Your task to perform on an android device: Add logitech g910 to the cart on newegg.com, then select checkout. Image 0: 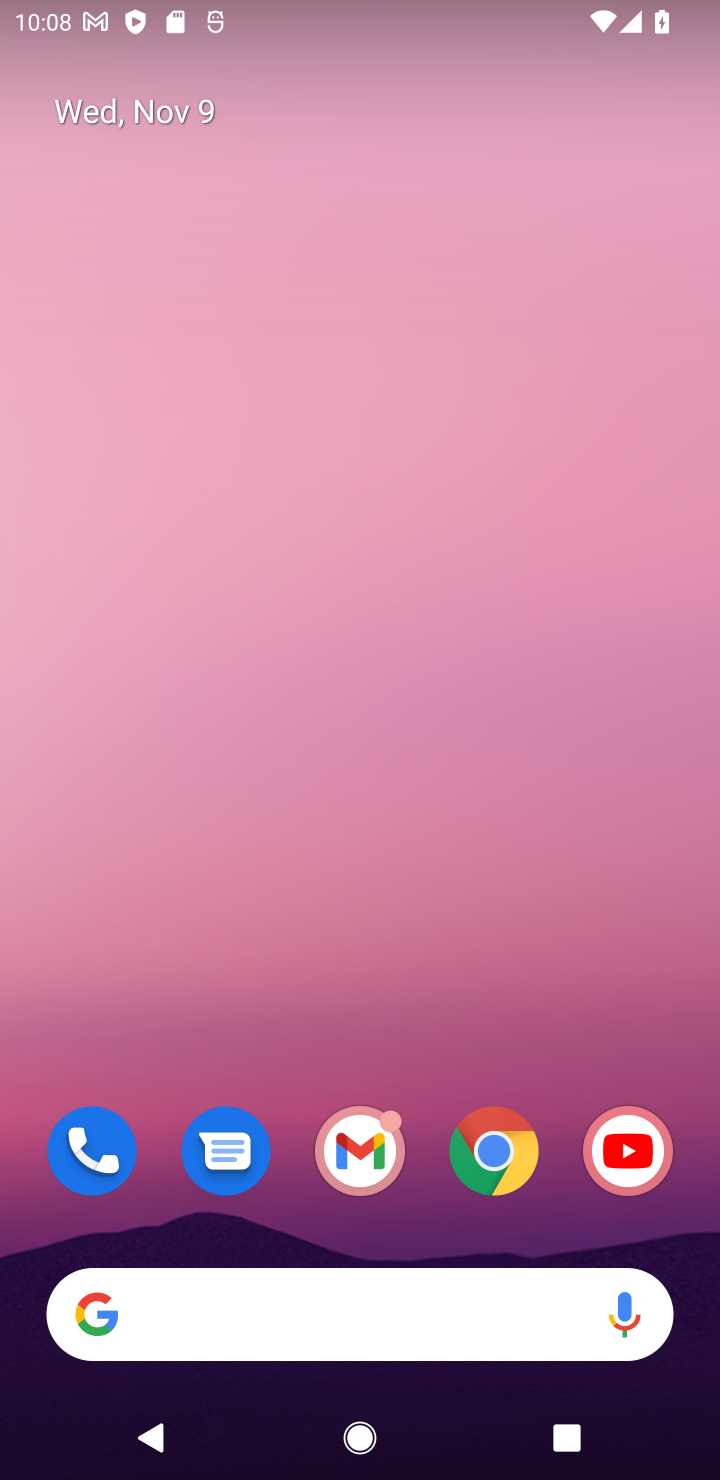
Step 0: click (475, 1157)
Your task to perform on an android device: Add logitech g910 to the cart on newegg.com, then select checkout. Image 1: 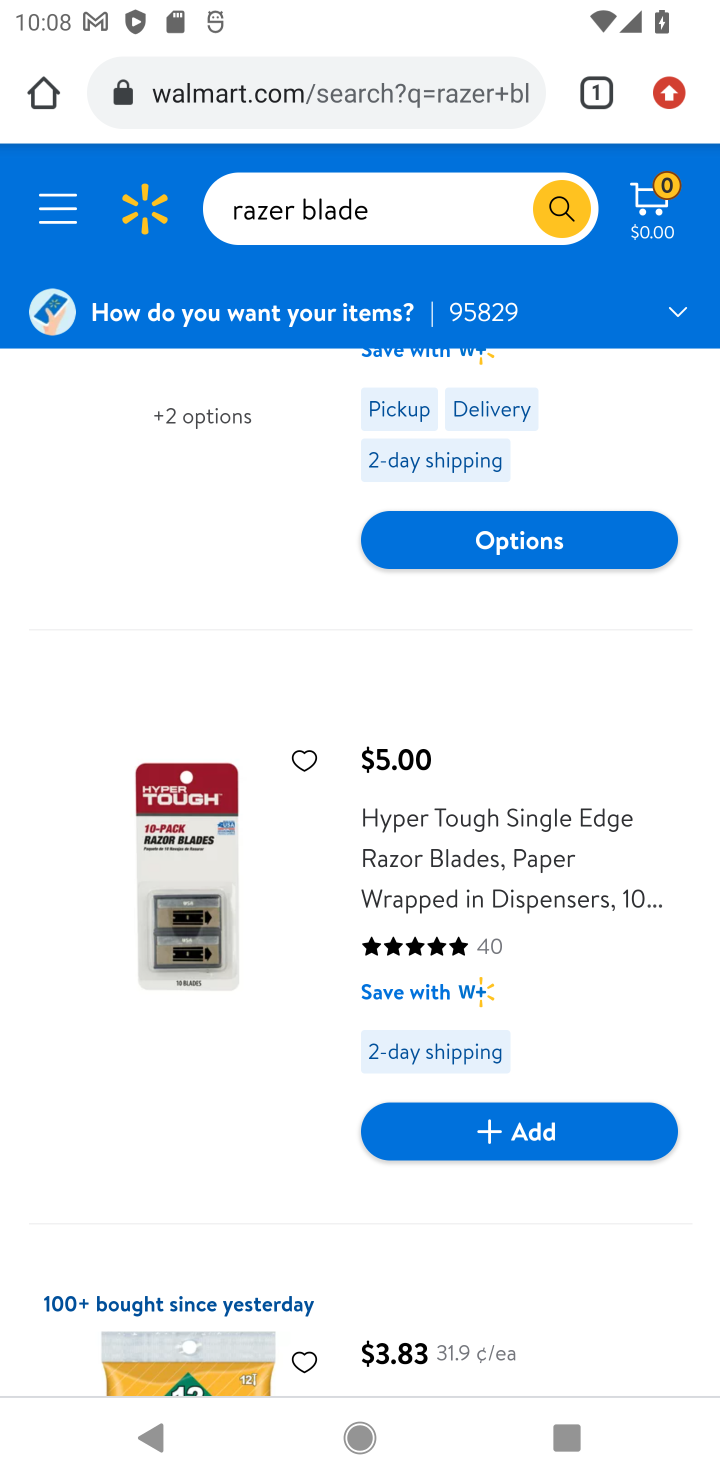
Step 1: click (419, 107)
Your task to perform on an android device: Add logitech g910 to the cart on newegg.com, then select checkout. Image 2: 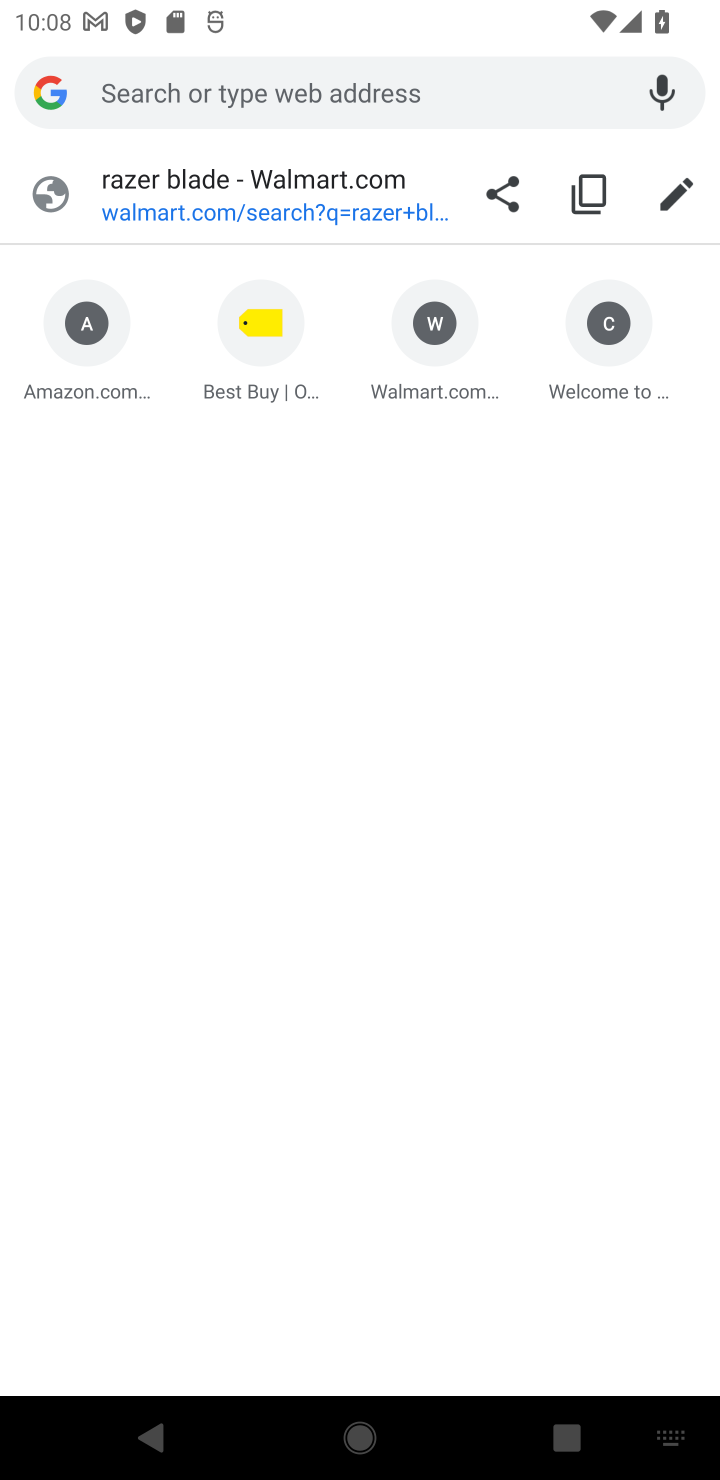
Step 2: type "newegg.com"
Your task to perform on an android device: Add logitech g910 to the cart on newegg.com, then select checkout. Image 3: 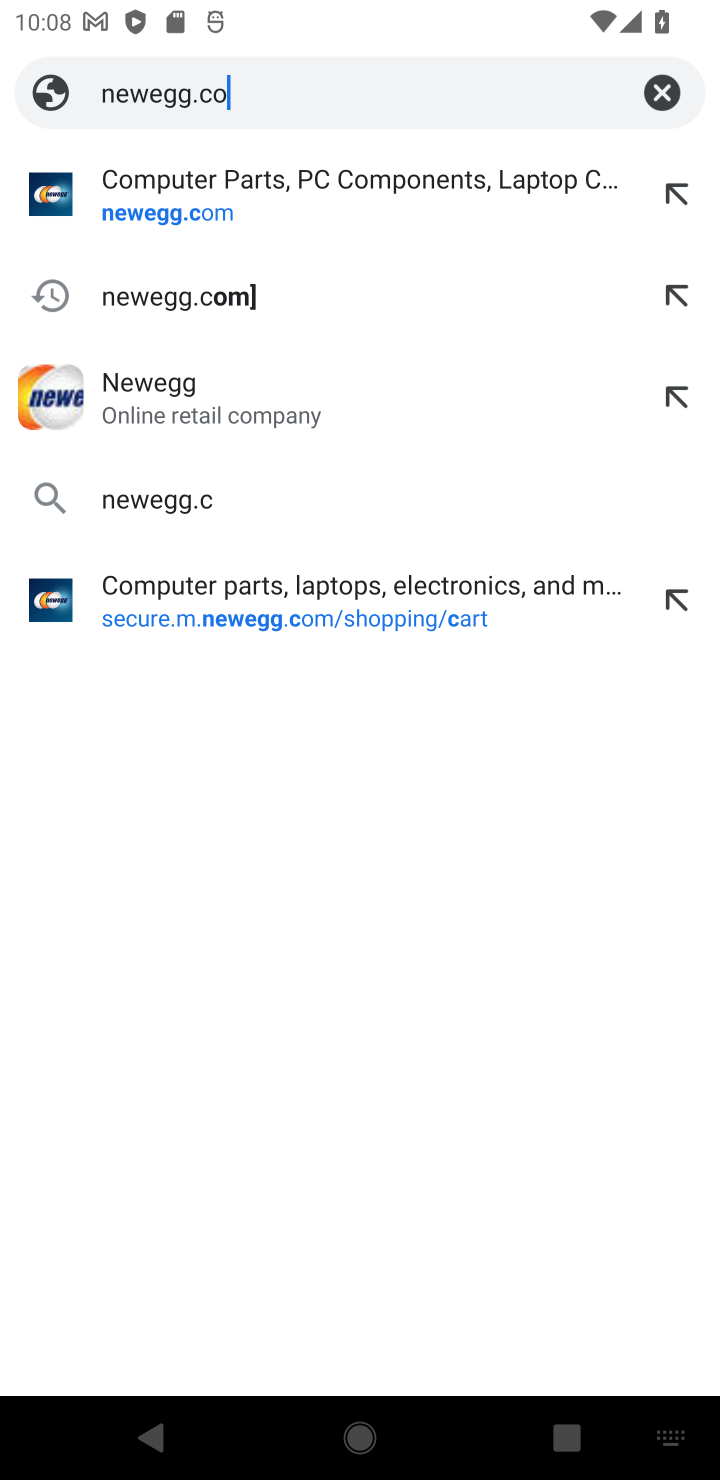
Step 3: press enter
Your task to perform on an android device: Add logitech g910 to the cart on newegg.com, then select checkout. Image 4: 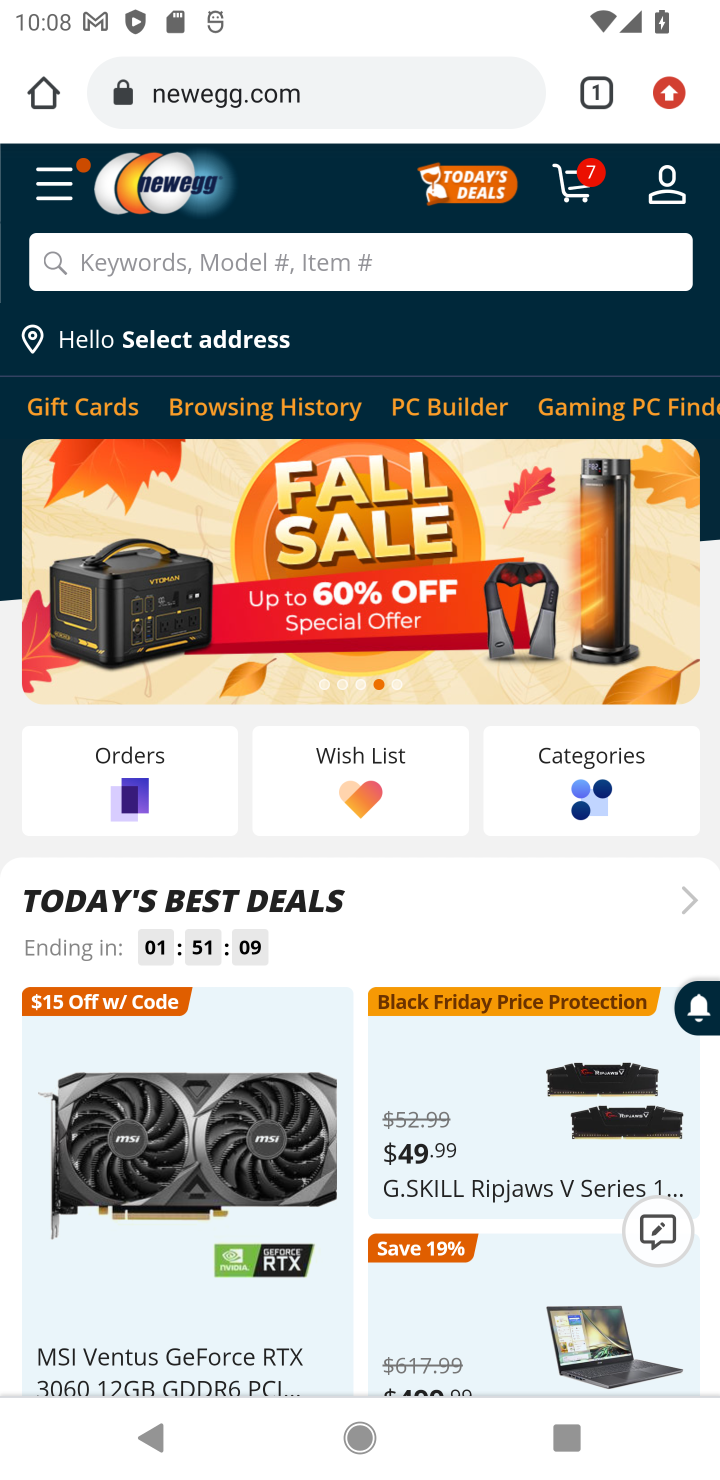
Step 4: click (346, 256)
Your task to perform on an android device: Add logitech g910 to the cart on newegg.com, then select checkout. Image 5: 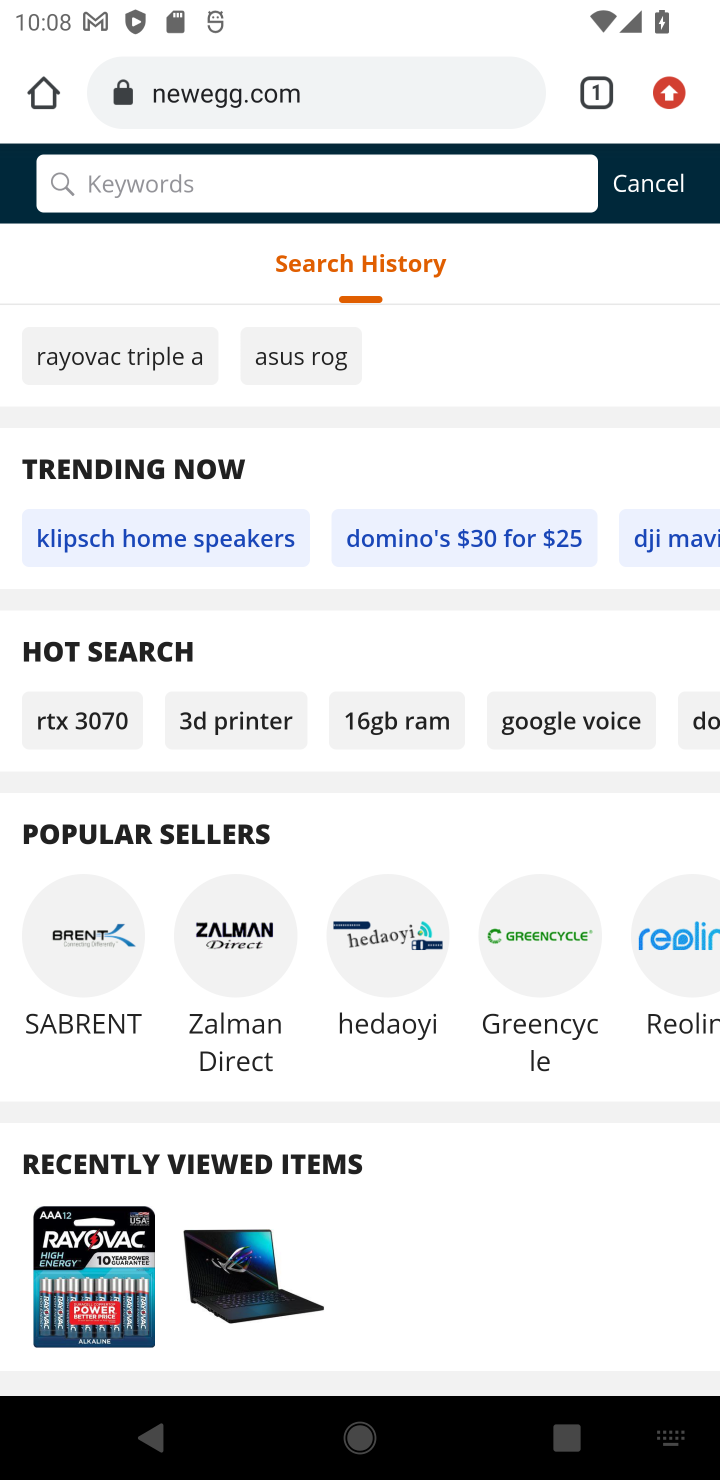
Step 5: click (418, 184)
Your task to perform on an android device: Add logitech g910 to the cart on newegg.com, then select checkout. Image 6: 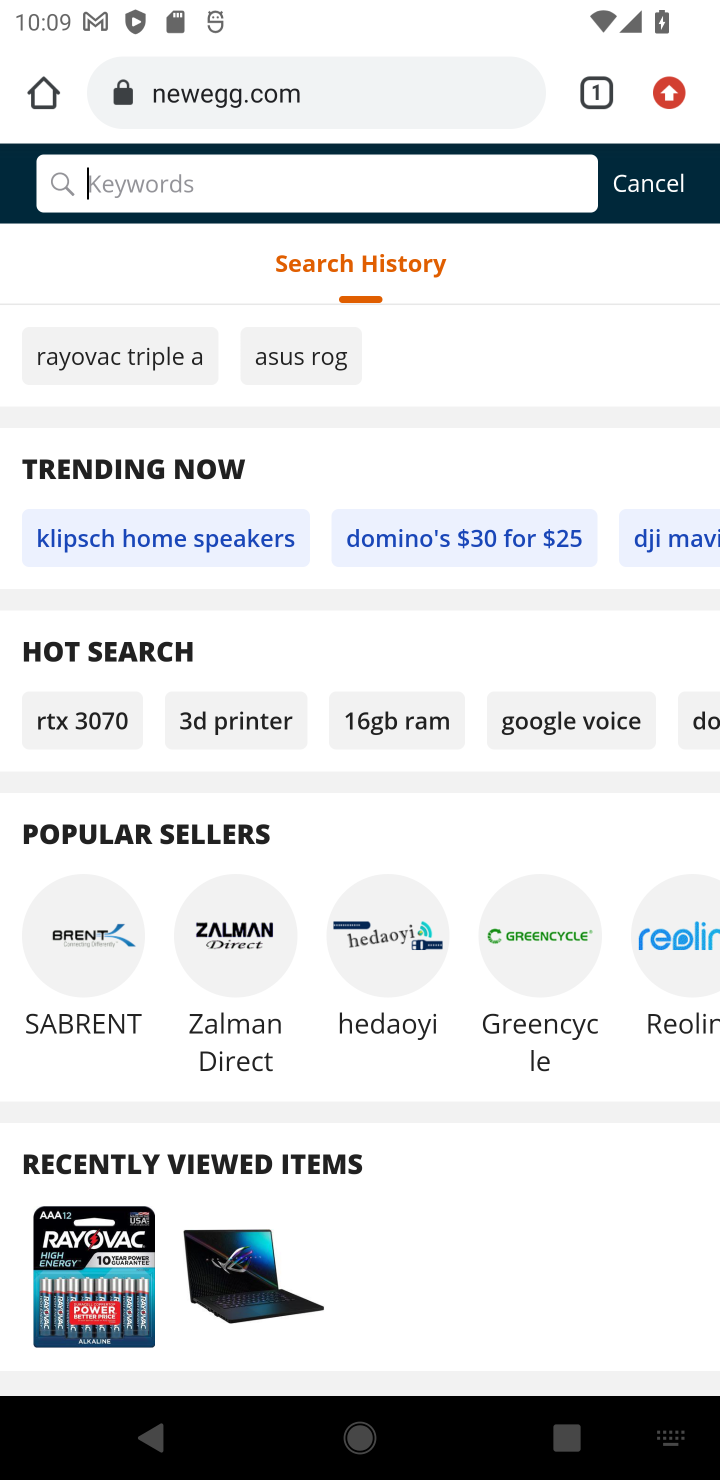
Step 6: press enter
Your task to perform on an android device: Add logitech g910 to the cart on newegg.com, then select checkout. Image 7: 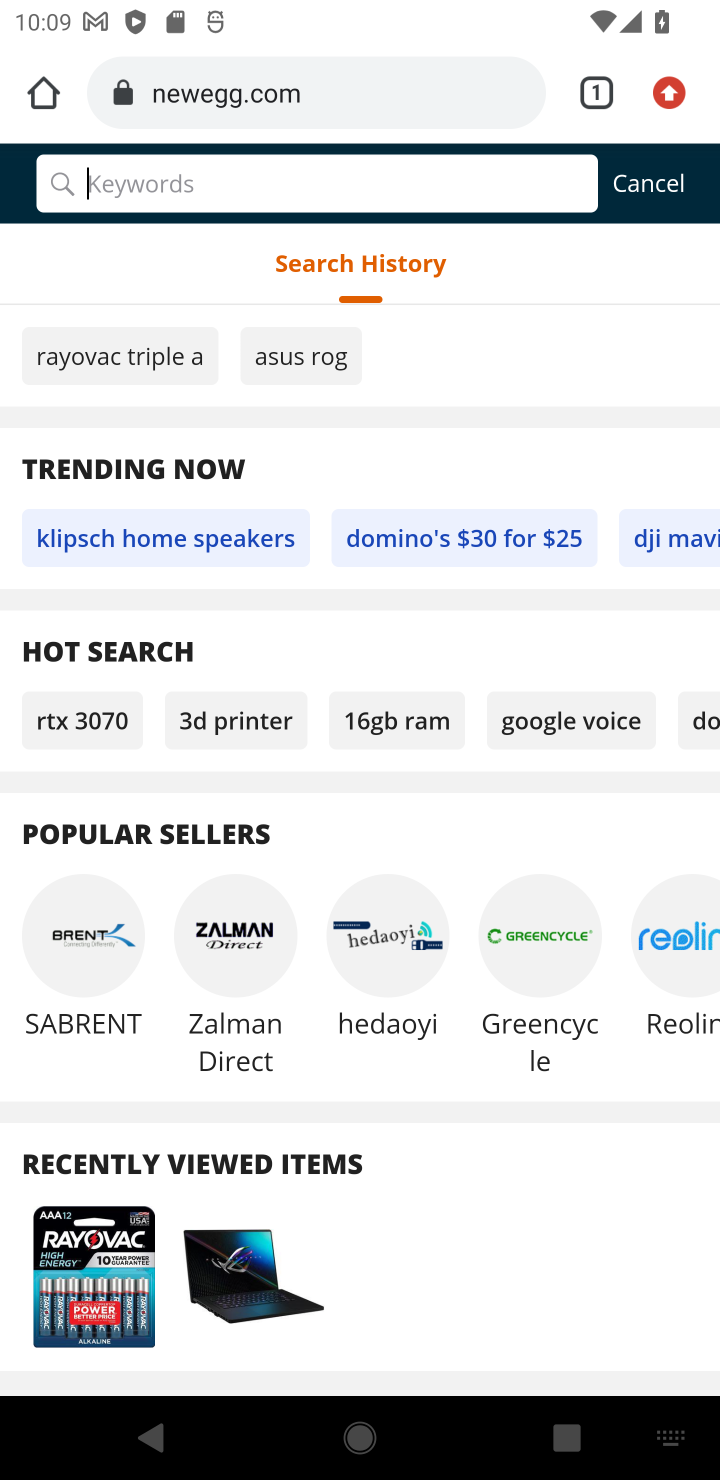
Step 7: type "logitech g910"
Your task to perform on an android device: Add logitech g910 to the cart on newegg.com, then select checkout. Image 8: 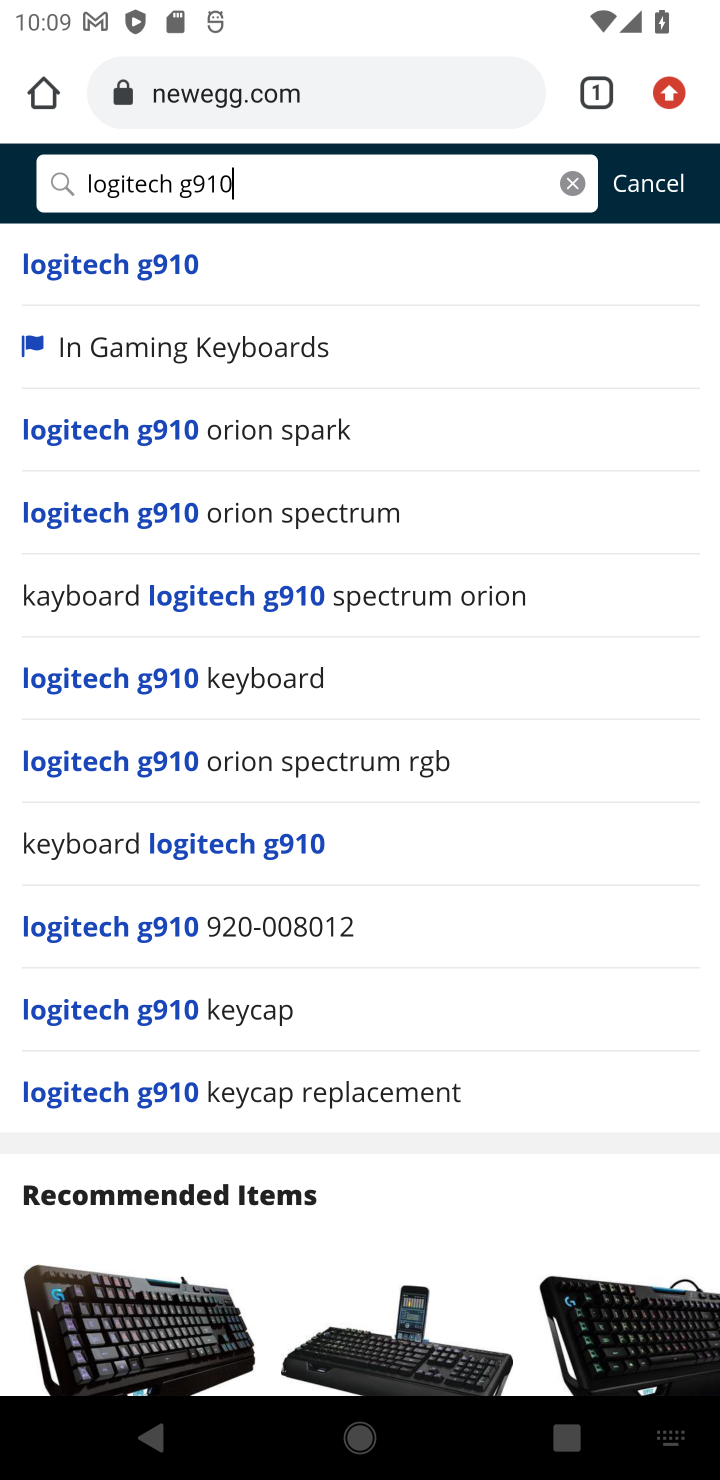
Step 8: click (165, 263)
Your task to perform on an android device: Add logitech g910 to the cart on newegg.com, then select checkout. Image 9: 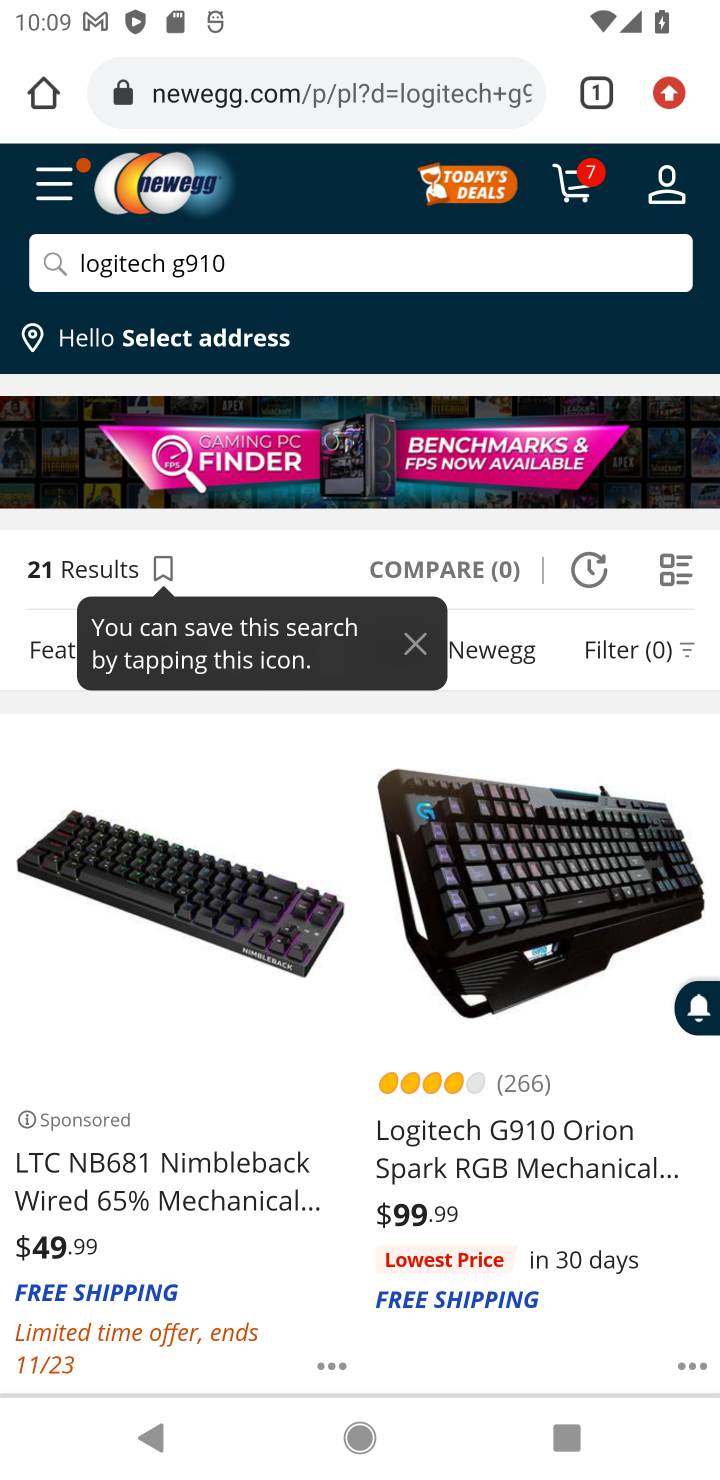
Step 9: click (548, 889)
Your task to perform on an android device: Add logitech g910 to the cart on newegg.com, then select checkout. Image 10: 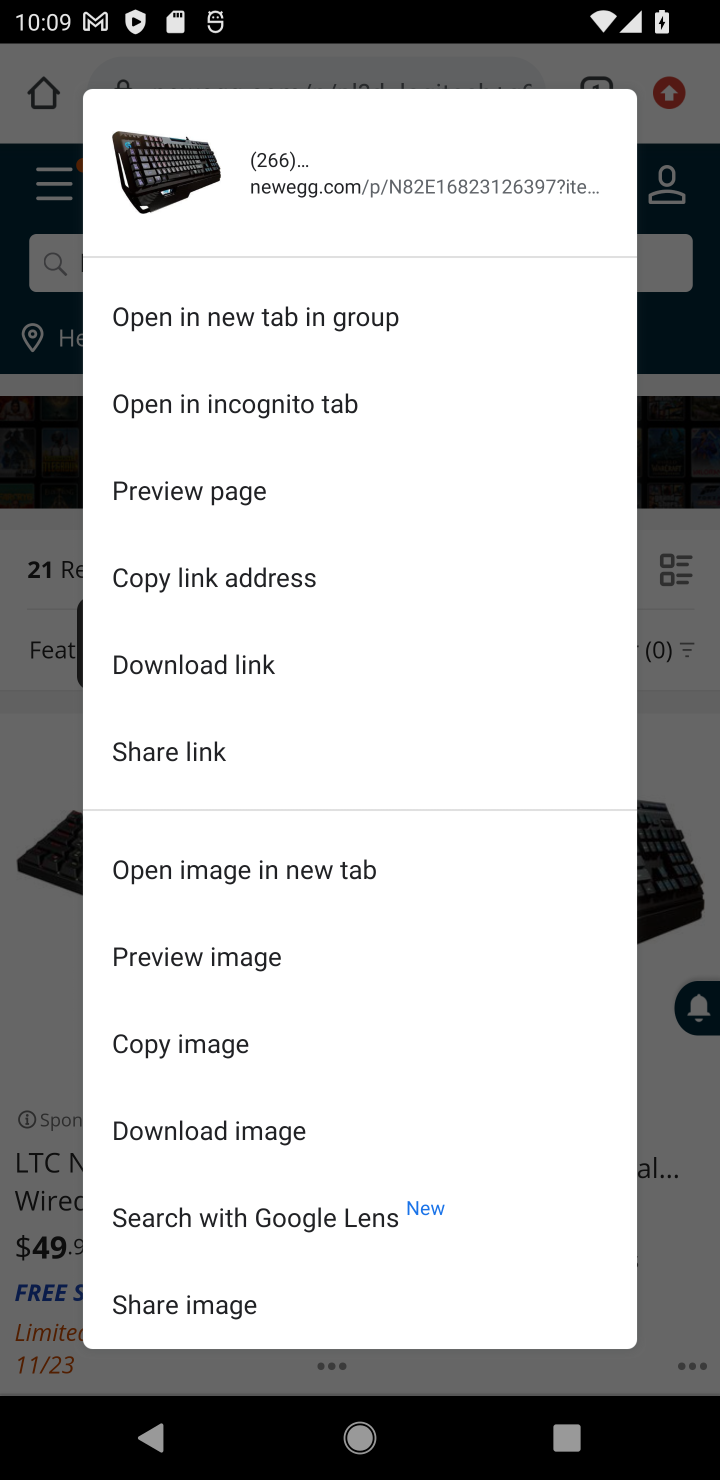
Step 10: click (683, 843)
Your task to perform on an android device: Add logitech g910 to the cart on newegg.com, then select checkout. Image 11: 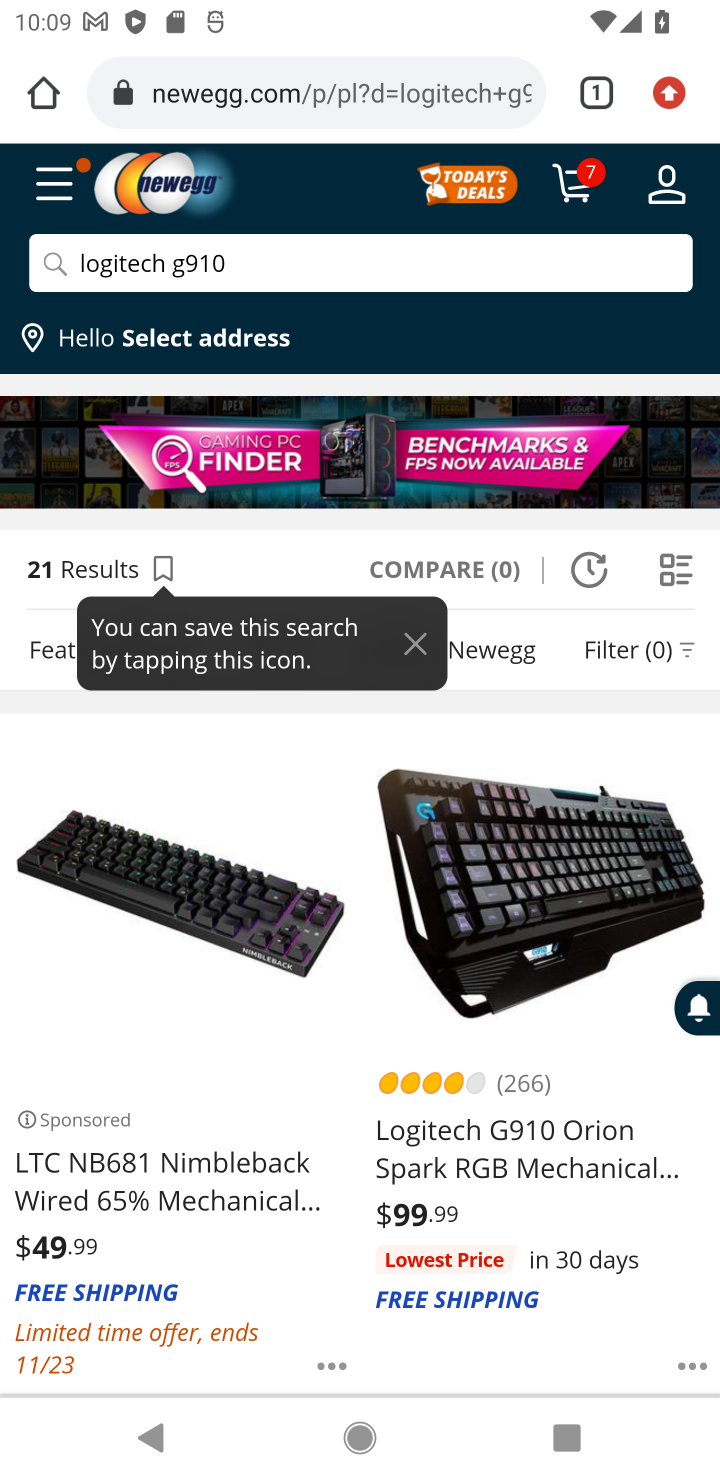
Step 11: click (638, 843)
Your task to perform on an android device: Add logitech g910 to the cart on newegg.com, then select checkout. Image 12: 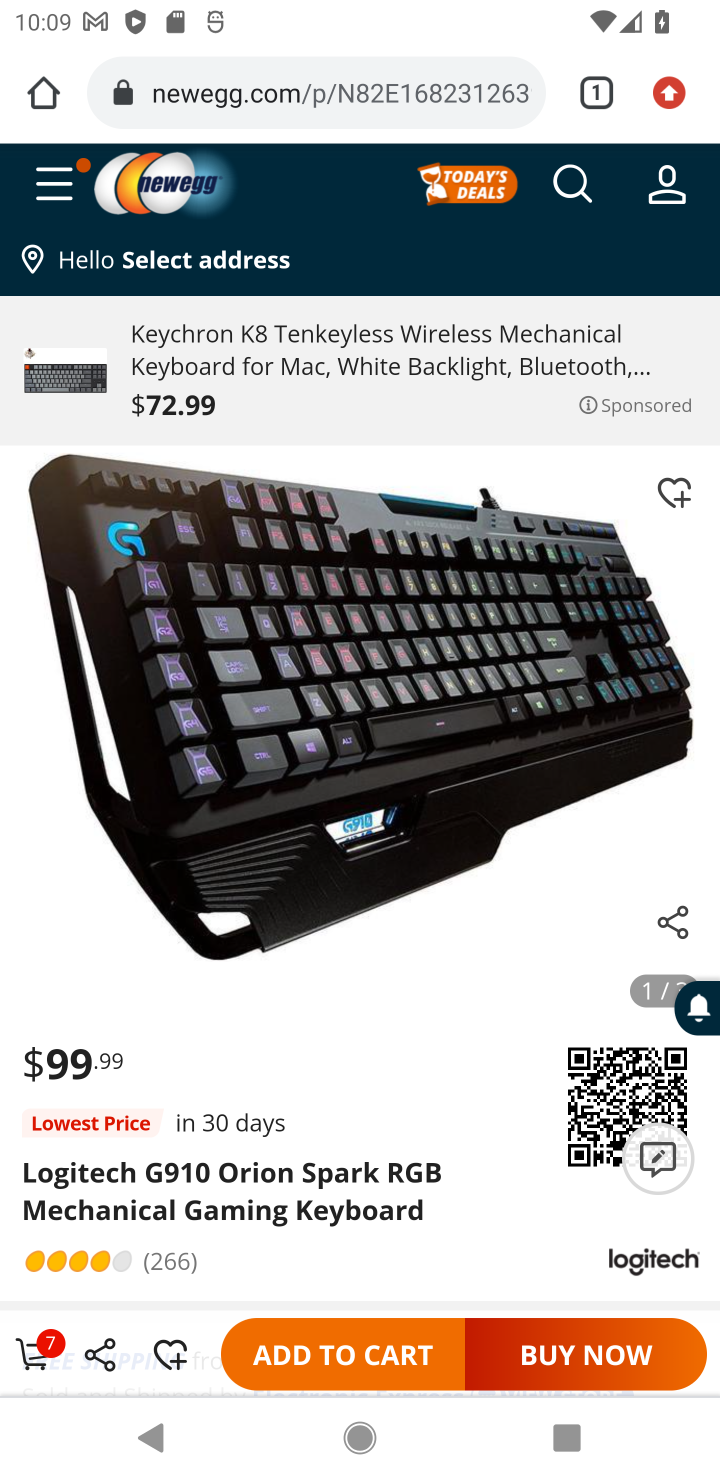
Step 12: click (316, 1358)
Your task to perform on an android device: Add logitech g910 to the cart on newegg.com, then select checkout. Image 13: 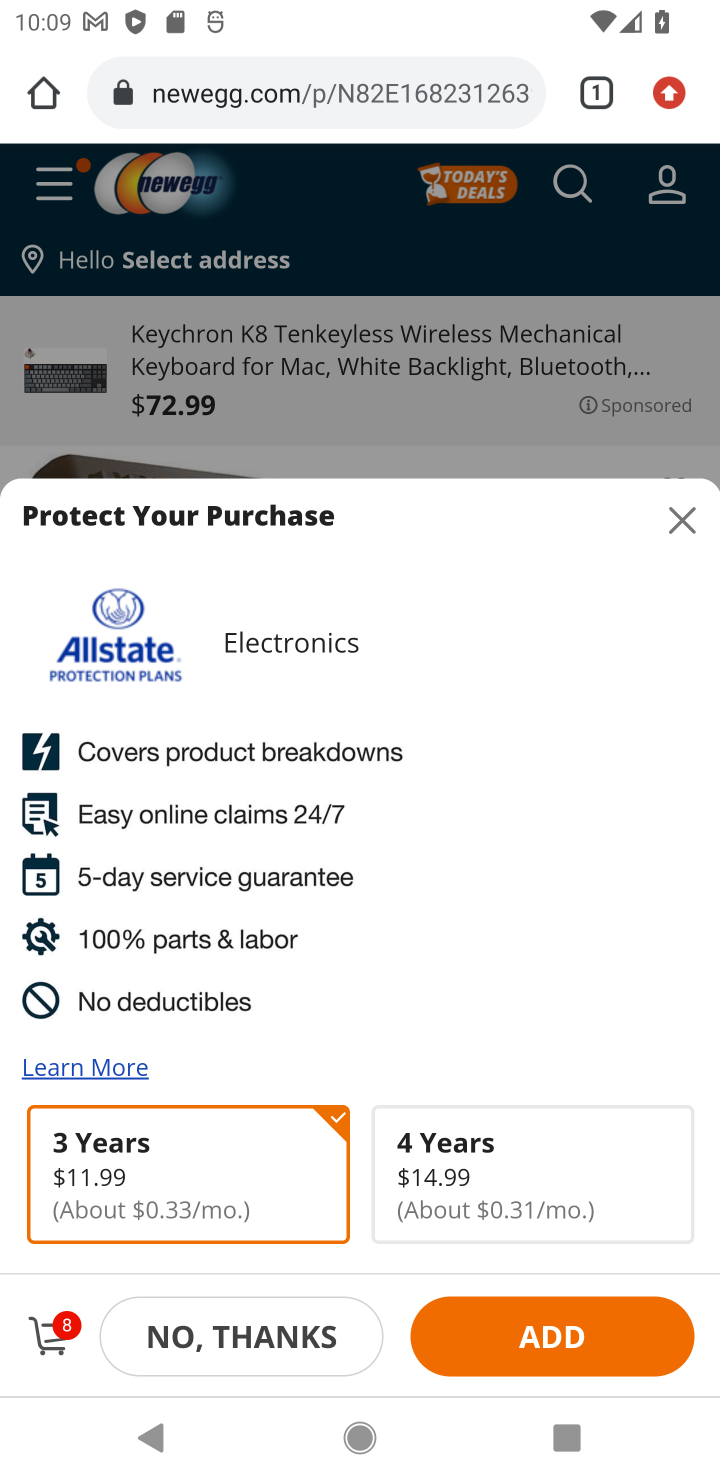
Step 13: click (690, 518)
Your task to perform on an android device: Add logitech g910 to the cart on newegg.com, then select checkout. Image 14: 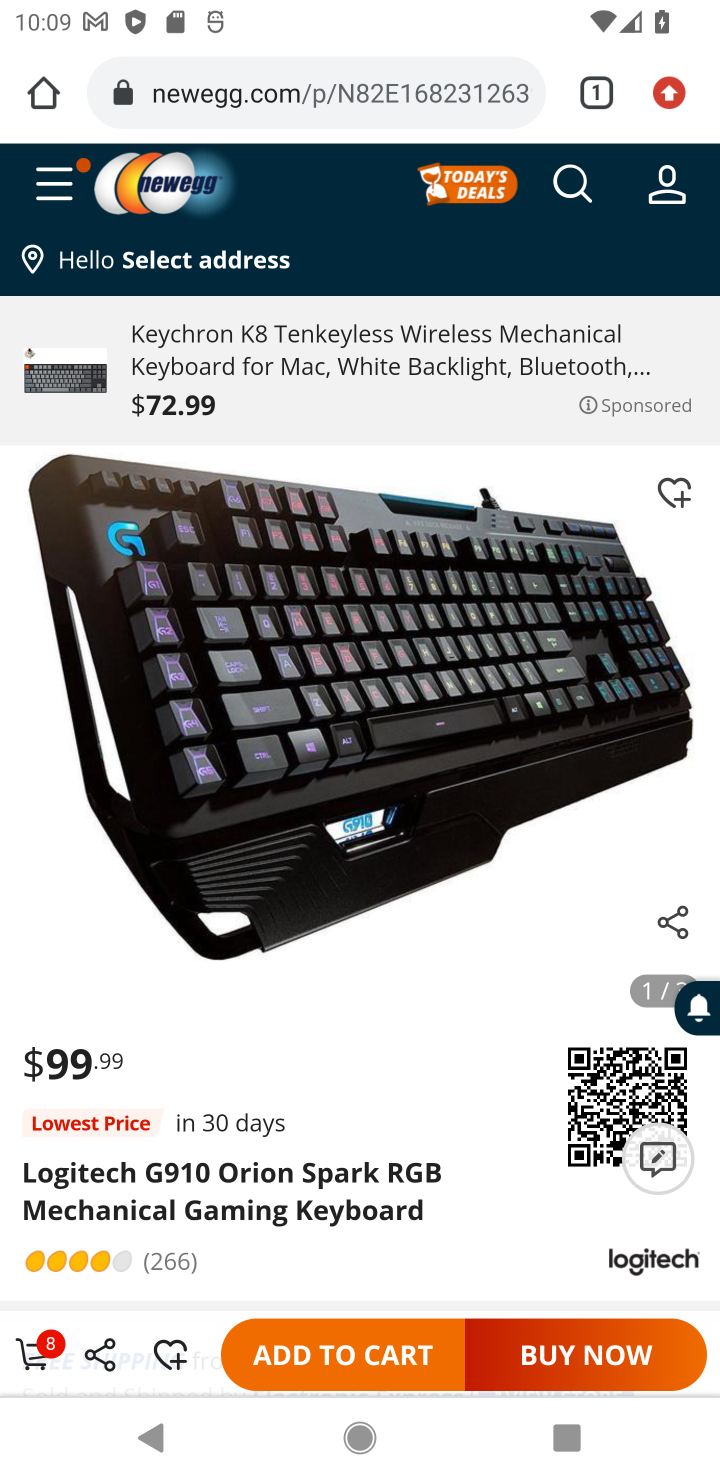
Step 14: click (39, 1354)
Your task to perform on an android device: Add logitech g910 to the cart on newegg.com, then select checkout. Image 15: 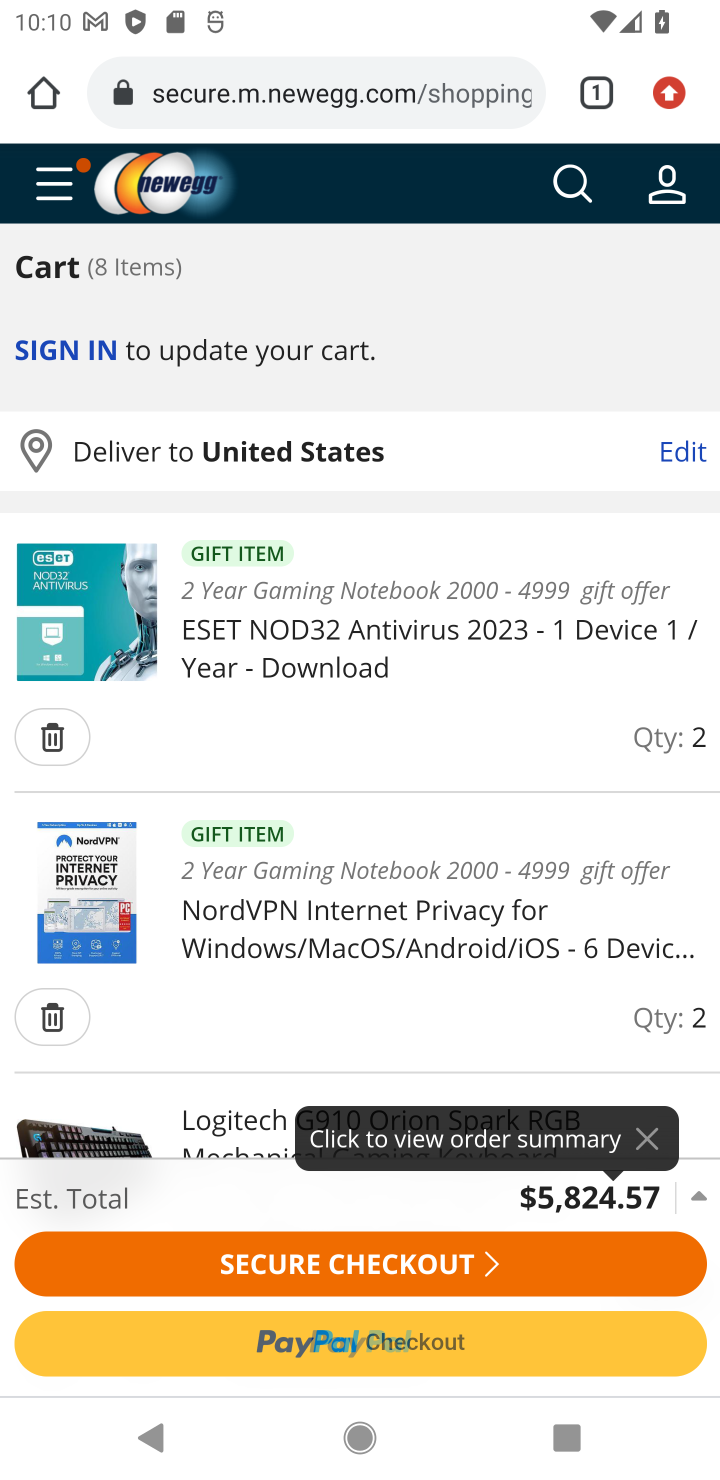
Step 15: click (359, 1325)
Your task to perform on an android device: Add logitech g910 to the cart on newegg.com, then select checkout. Image 16: 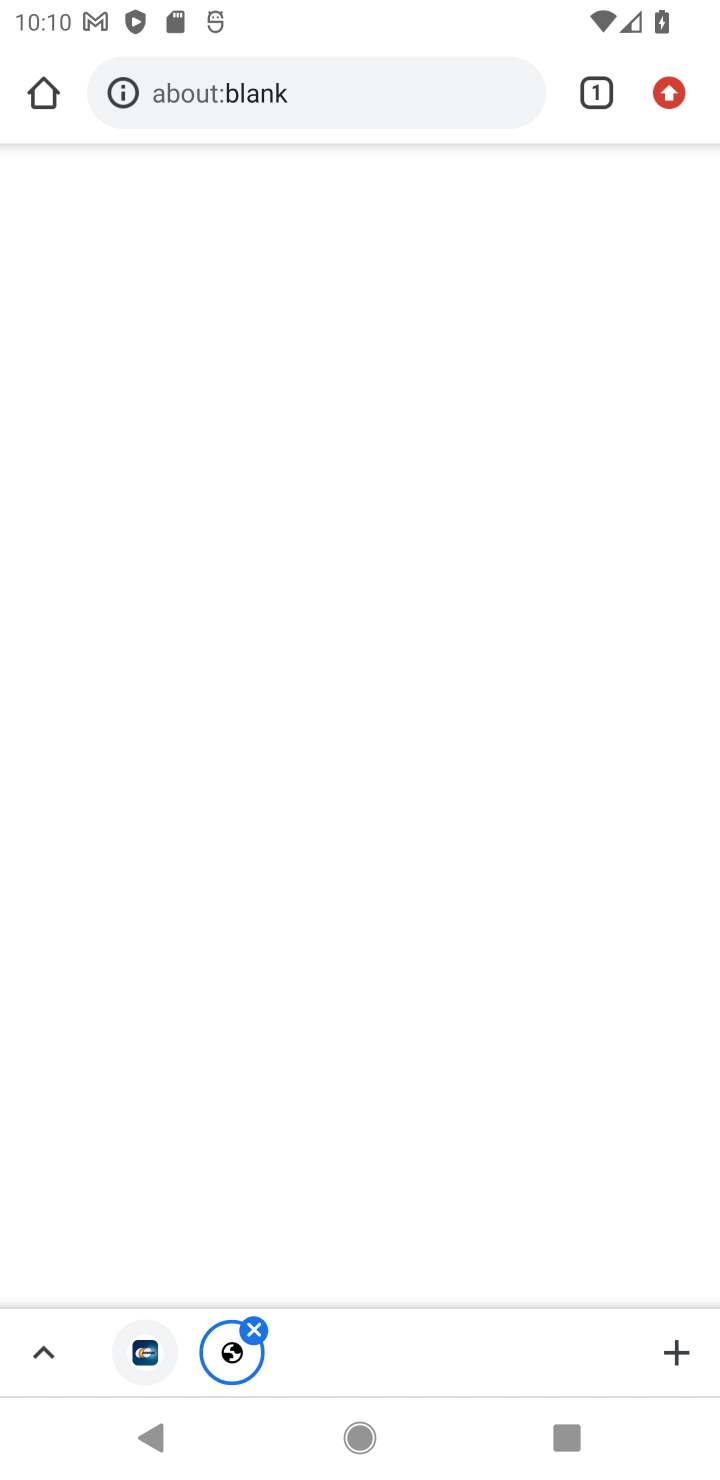
Step 16: task complete